Your task to perform on an android device: Turn off the flashlight Image 0: 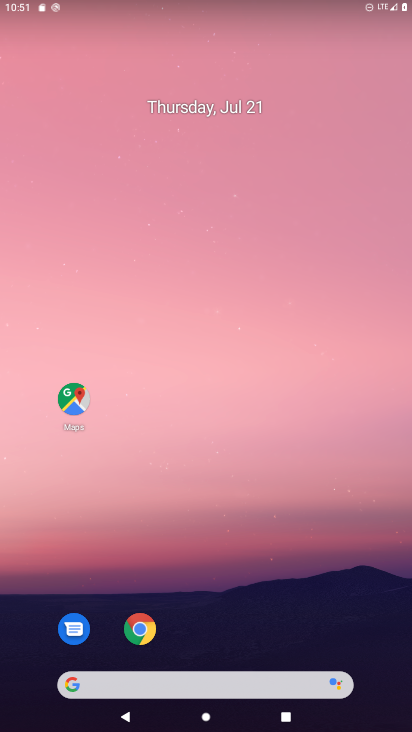
Step 0: press home button
Your task to perform on an android device: Turn off the flashlight Image 1: 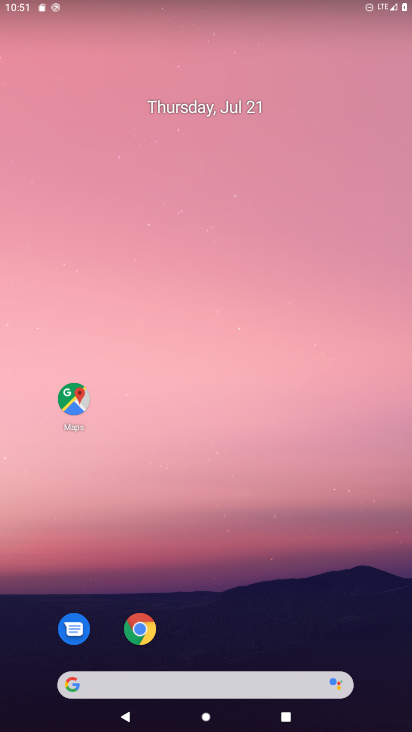
Step 1: task complete